Your task to perform on an android device: install app "Gmail" Image 0: 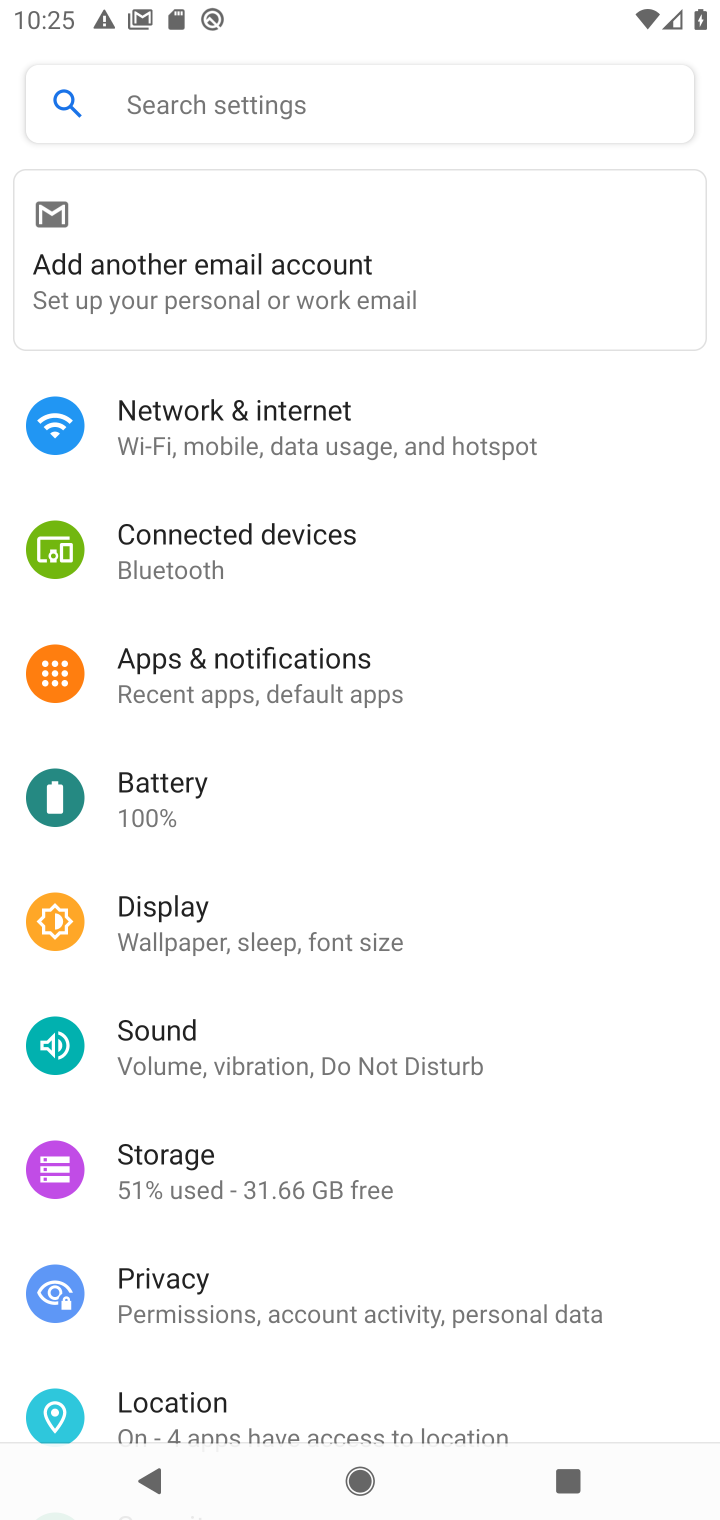
Step 0: press home button
Your task to perform on an android device: install app "Gmail" Image 1: 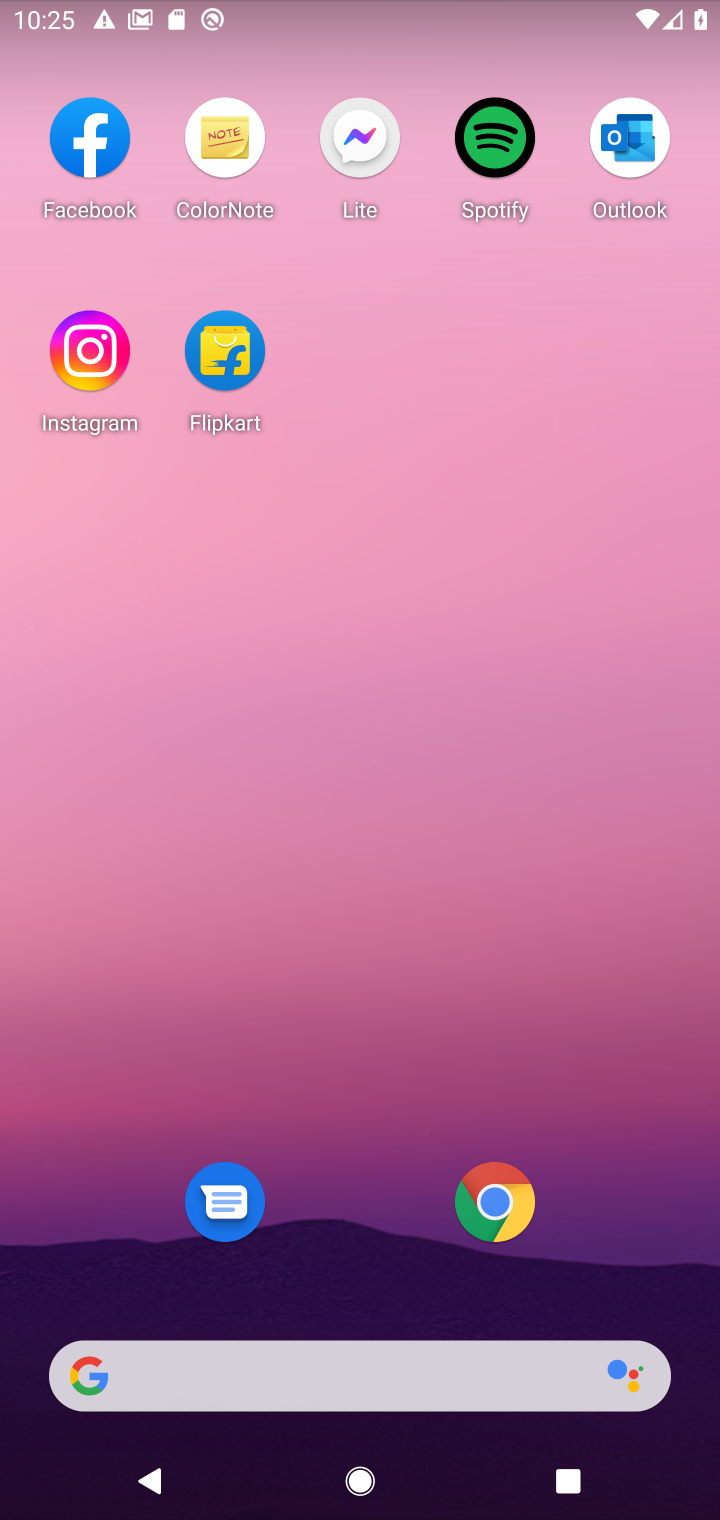
Step 1: drag from (321, 1367) to (315, 13)
Your task to perform on an android device: install app "Gmail" Image 2: 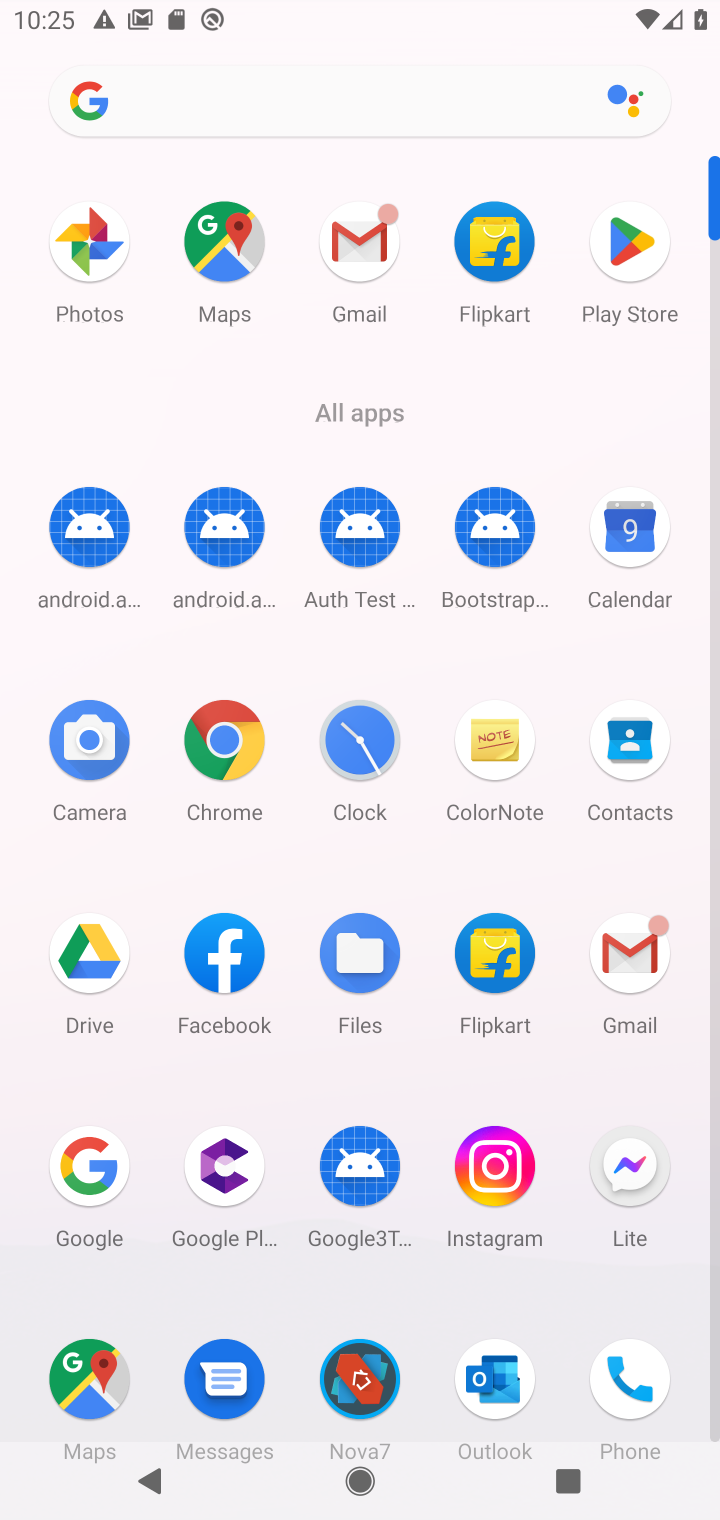
Step 2: click (637, 272)
Your task to perform on an android device: install app "Gmail" Image 3: 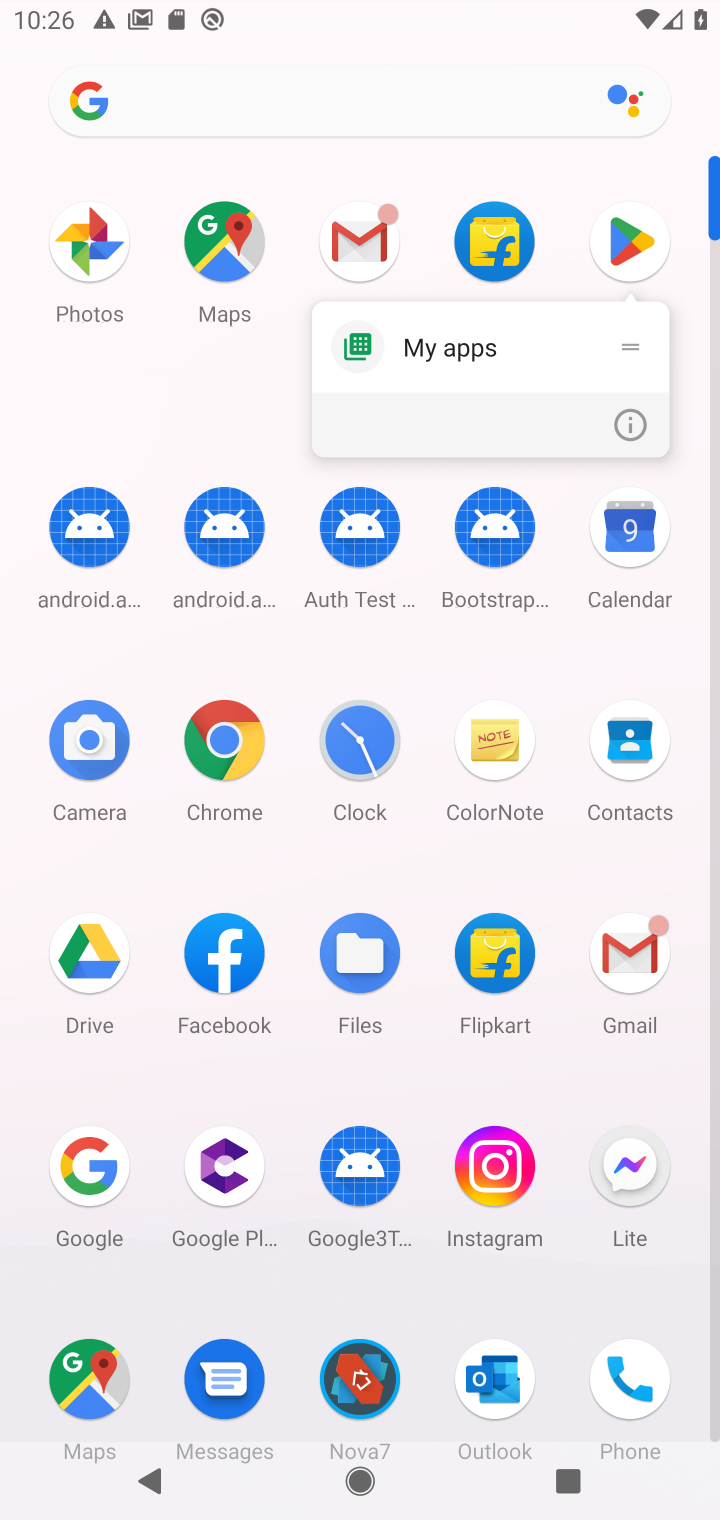
Step 3: click (637, 272)
Your task to perform on an android device: install app "Gmail" Image 4: 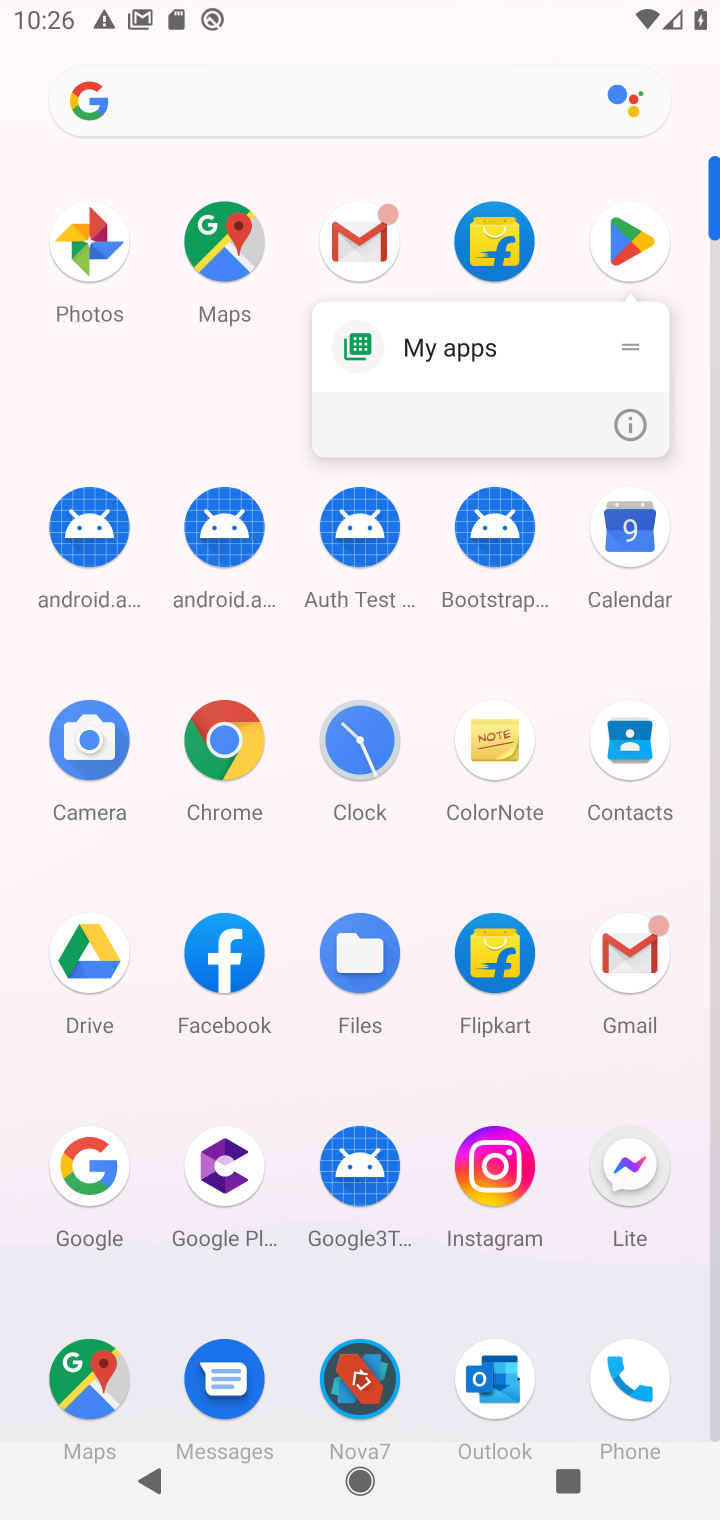
Step 4: click (637, 272)
Your task to perform on an android device: install app "Gmail" Image 5: 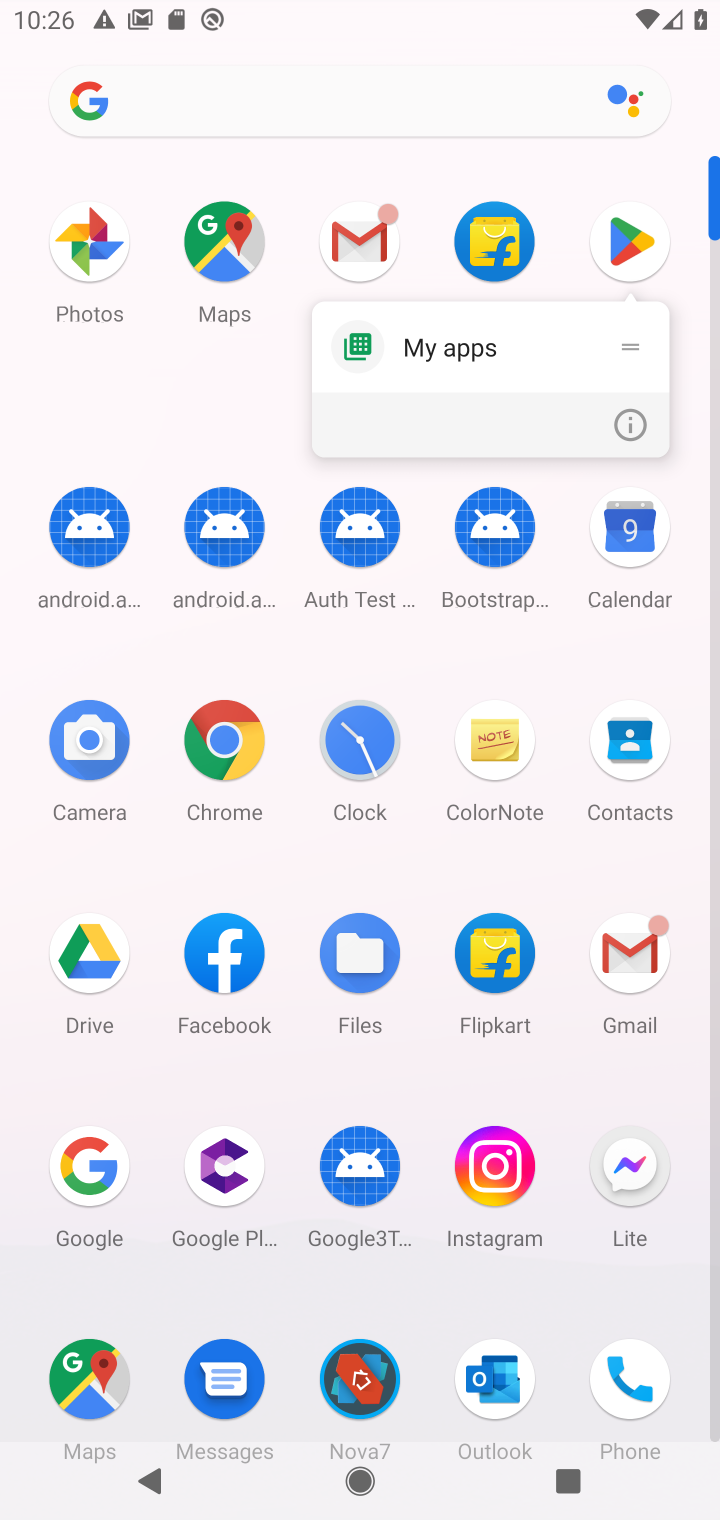
Step 5: click (623, 267)
Your task to perform on an android device: install app "Gmail" Image 6: 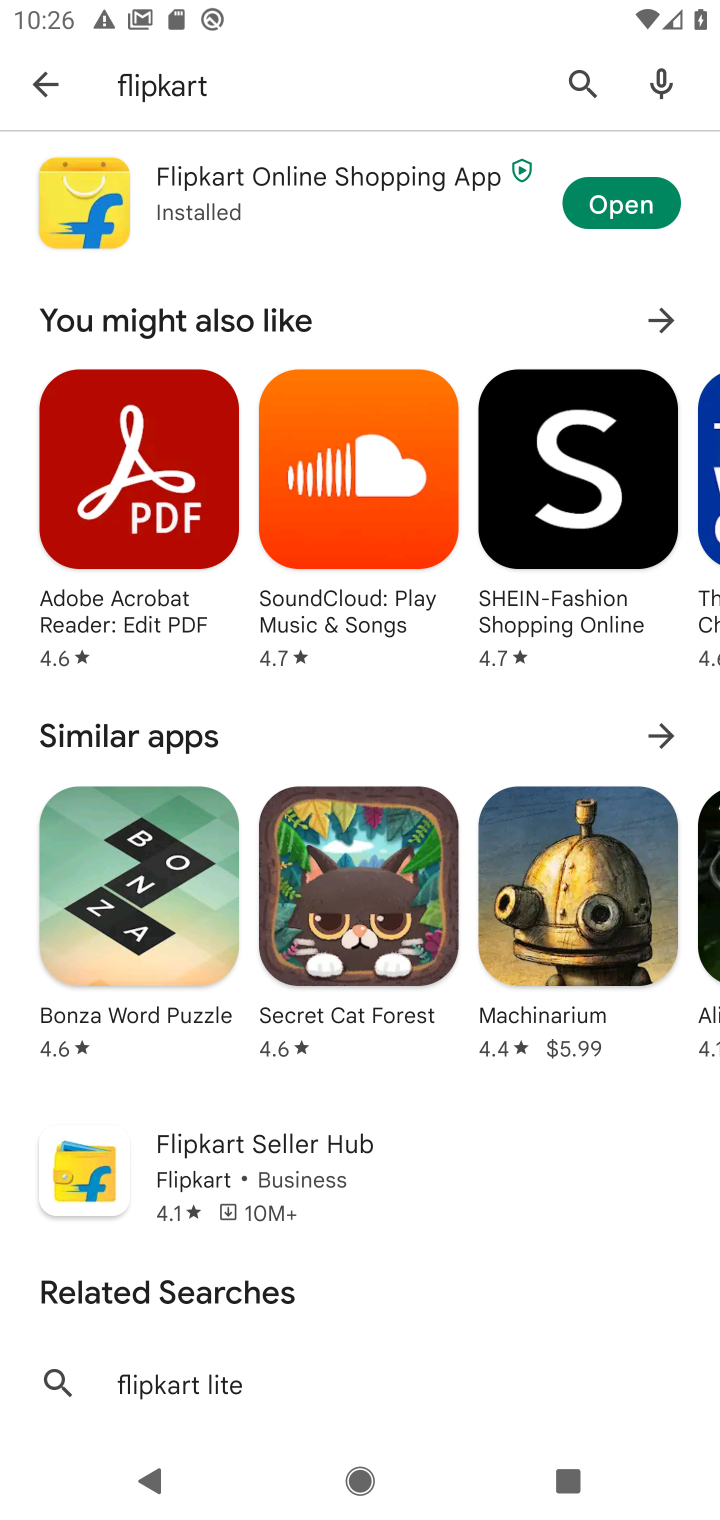
Step 6: click (580, 83)
Your task to perform on an android device: install app "Gmail" Image 7: 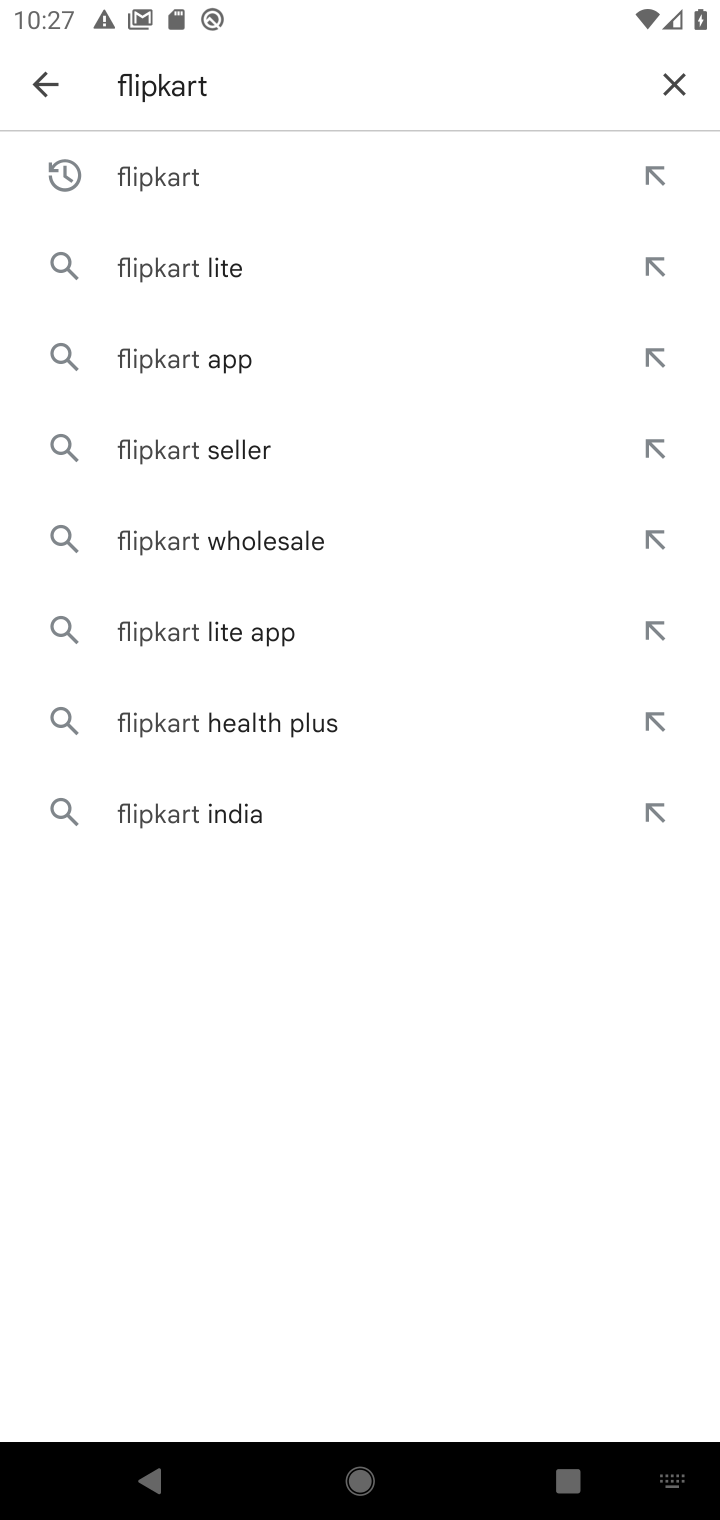
Step 7: click (687, 78)
Your task to perform on an android device: install app "Gmail" Image 8: 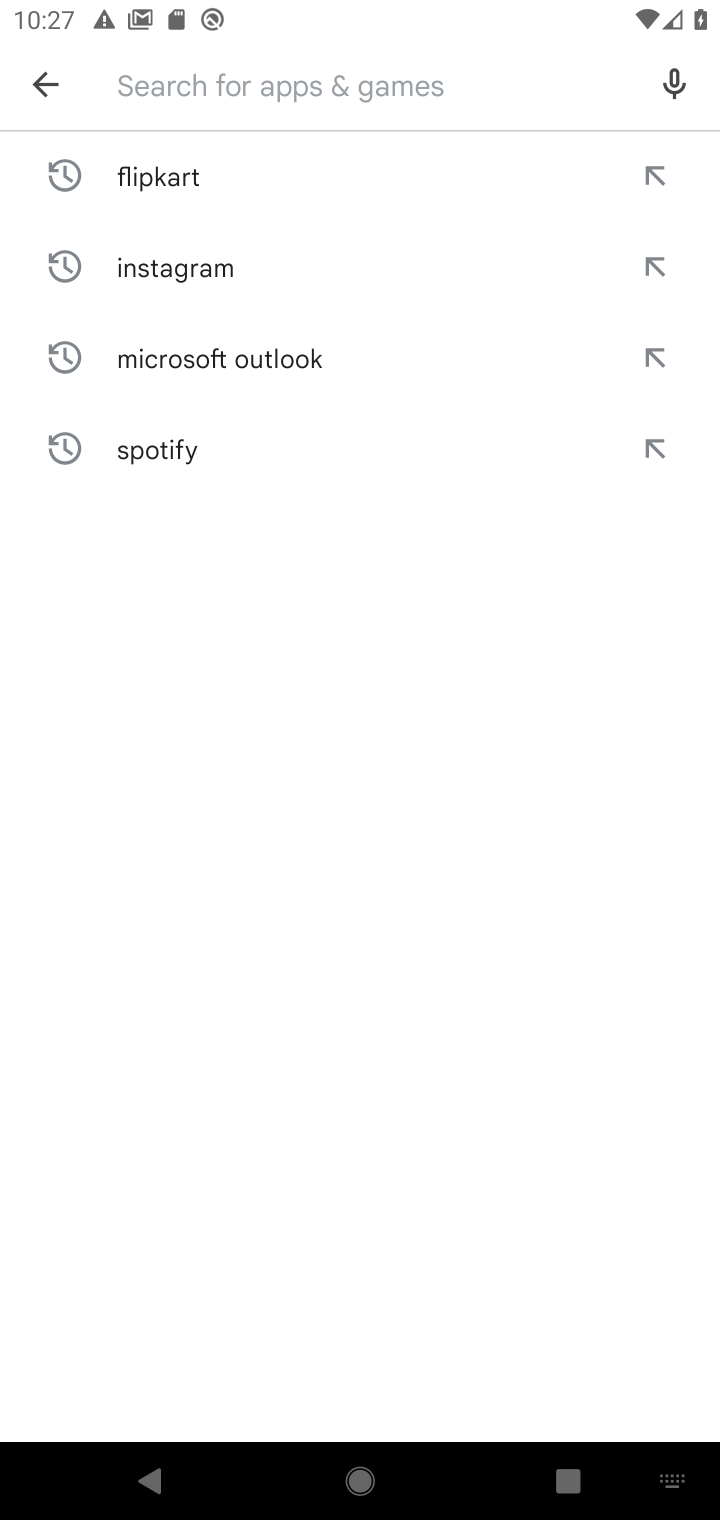
Step 8: type "gmail"
Your task to perform on an android device: install app "Gmail" Image 9: 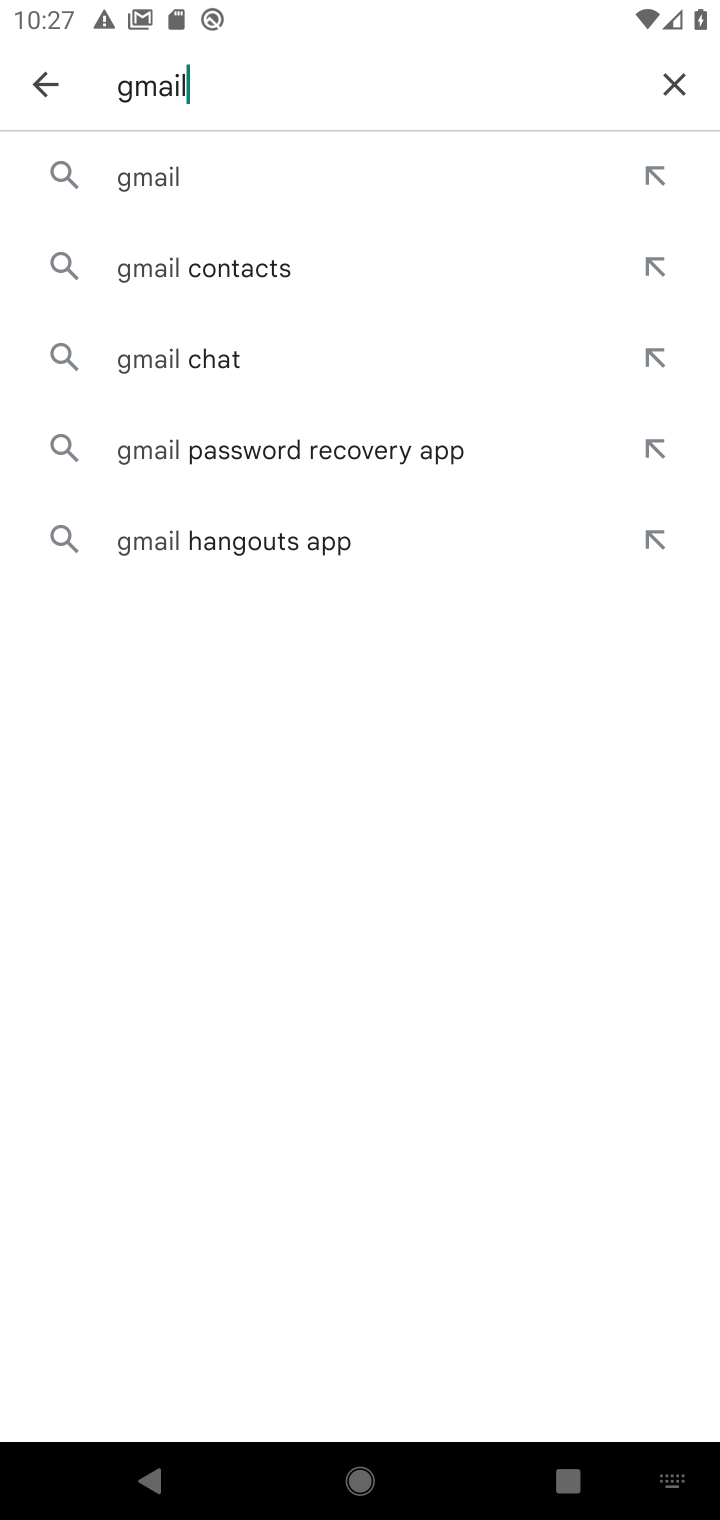
Step 9: click (167, 196)
Your task to perform on an android device: install app "Gmail" Image 10: 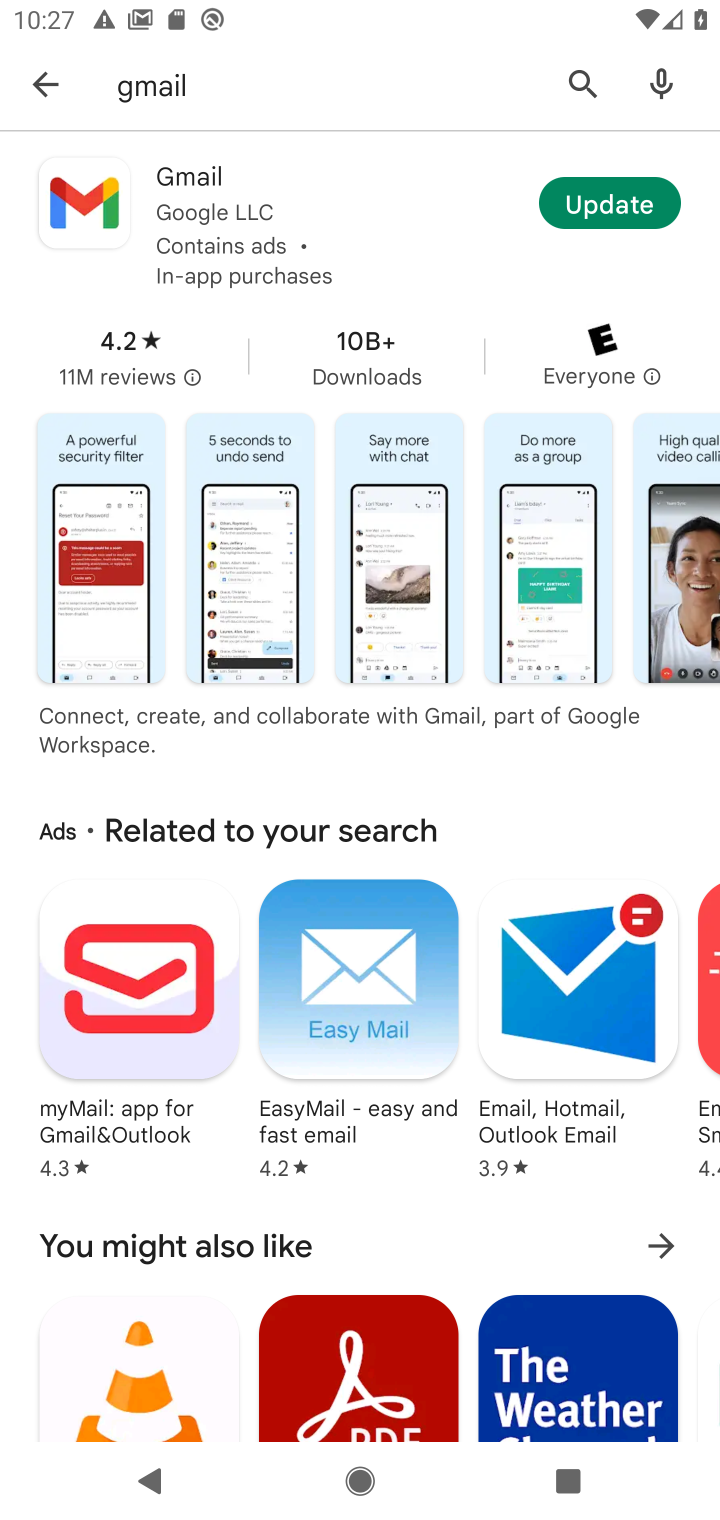
Step 10: click (241, 224)
Your task to perform on an android device: install app "Gmail" Image 11: 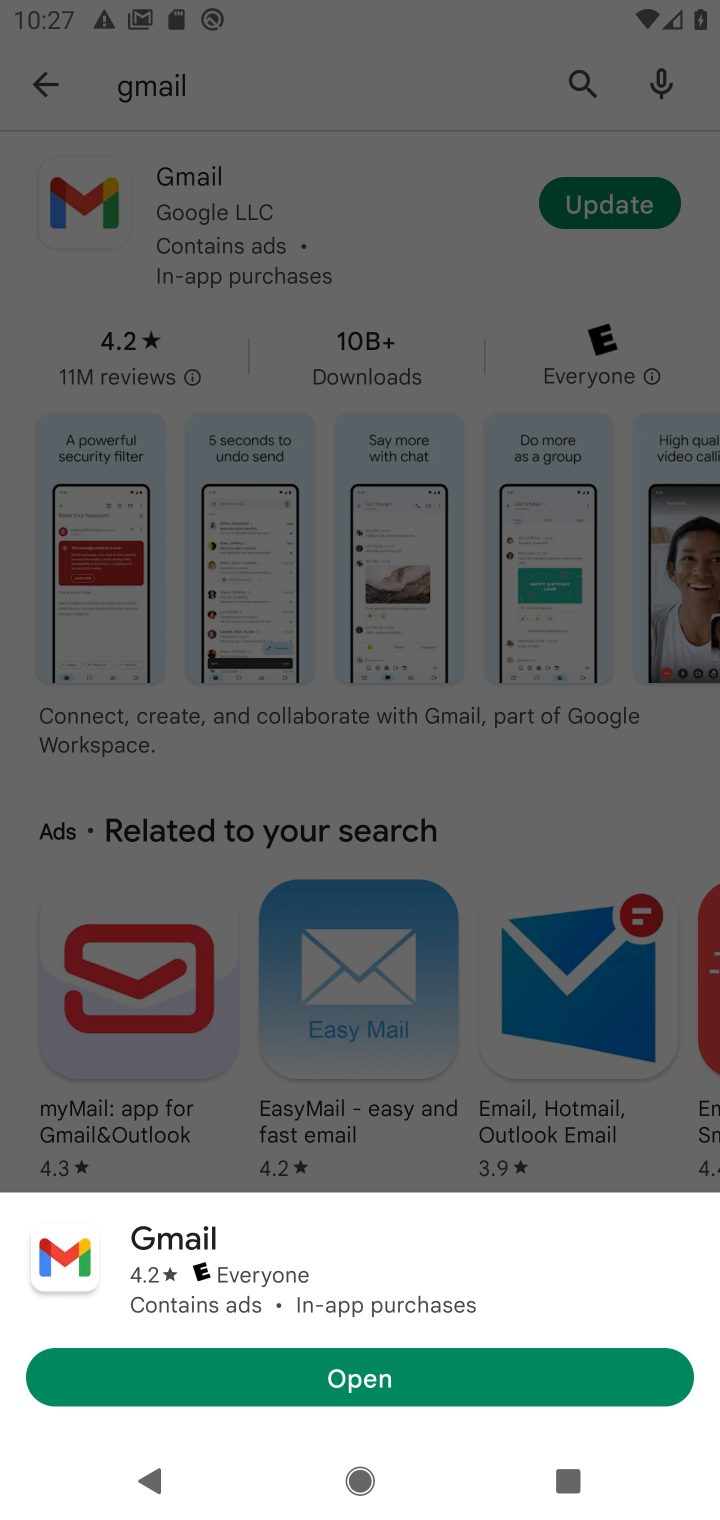
Step 11: task complete